Your task to perform on an android device: Go to Google maps Image 0: 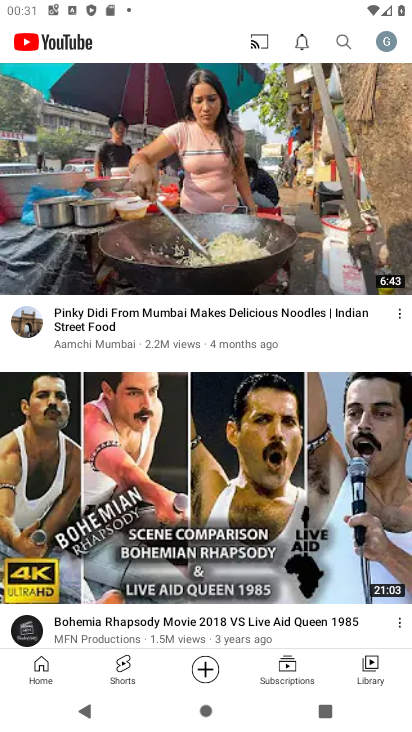
Step 0: press home button
Your task to perform on an android device: Go to Google maps Image 1: 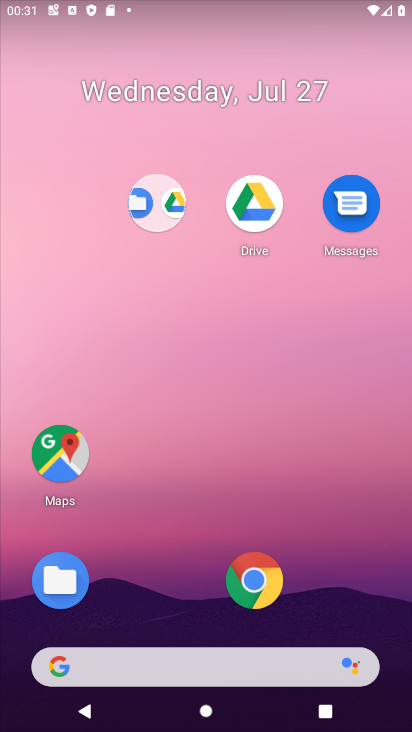
Step 1: click (58, 437)
Your task to perform on an android device: Go to Google maps Image 2: 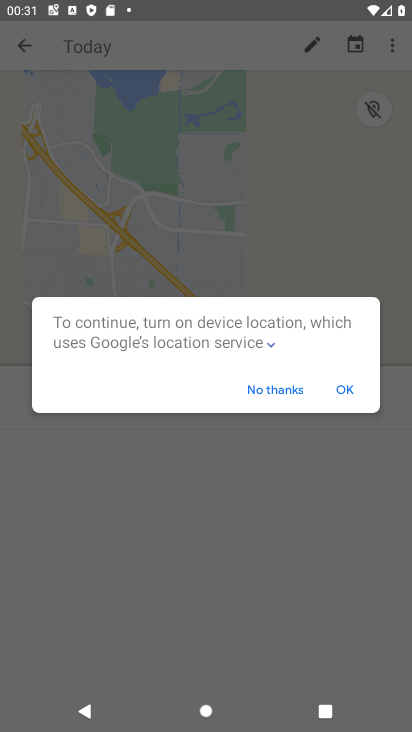
Step 2: task complete